Your task to perform on an android device: Open maps Image 0: 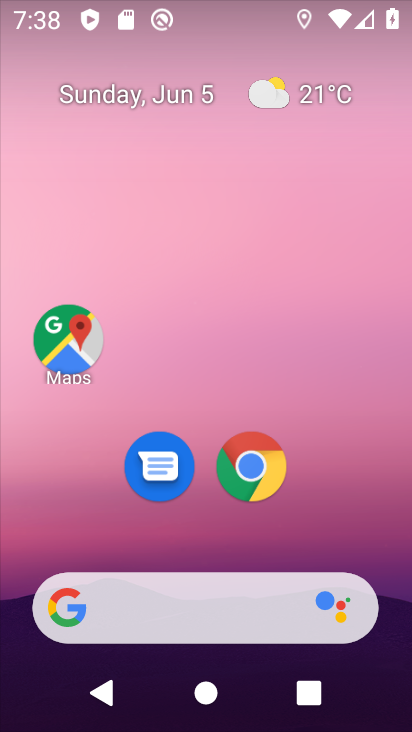
Step 0: click (372, 26)
Your task to perform on an android device: Open maps Image 1: 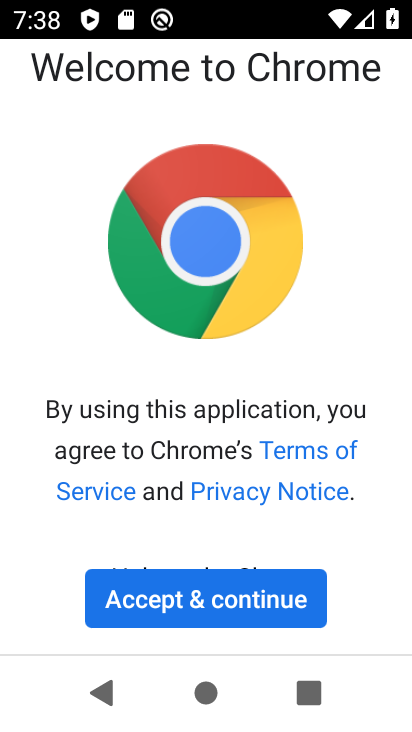
Step 1: press home button
Your task to perform on an android device: Open maps Image 2: 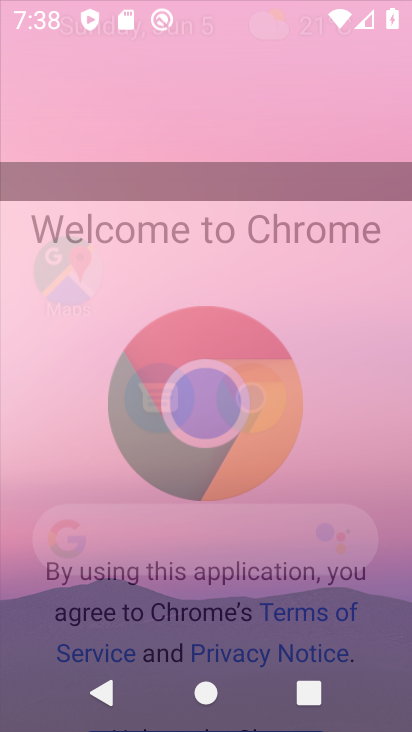
Step 2: drag from (119, 538) to (17, 168)
Your task to perform on an android device: Open maps Image 3: 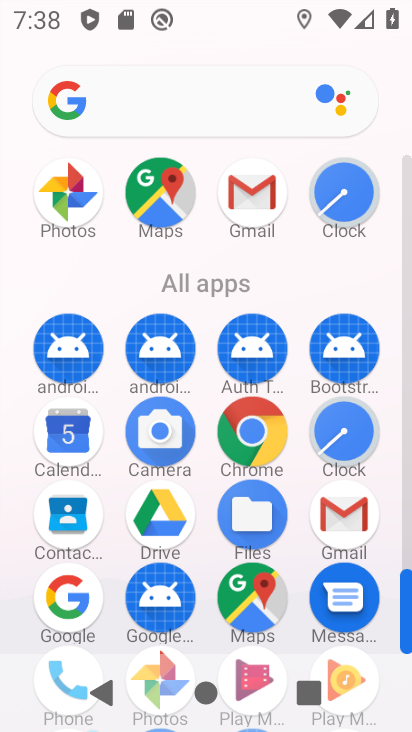
Step 3: click (163, 188)
Your task to perform on an android device: Open maps Image 4: 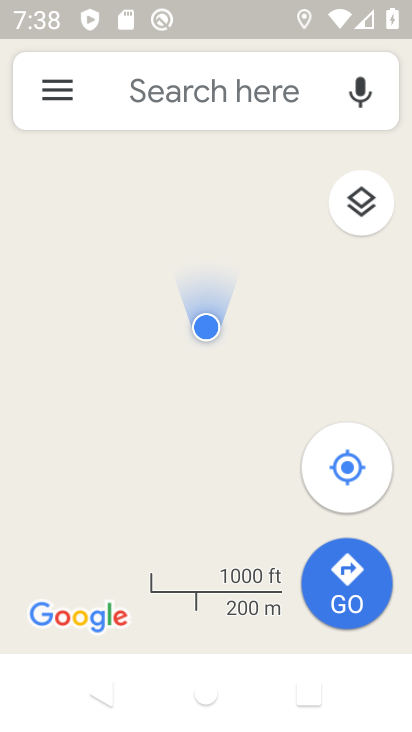
Step 4: drag from (226, 541) to (221, 142)
Your task to perform on an android device: Open maps Image 5: 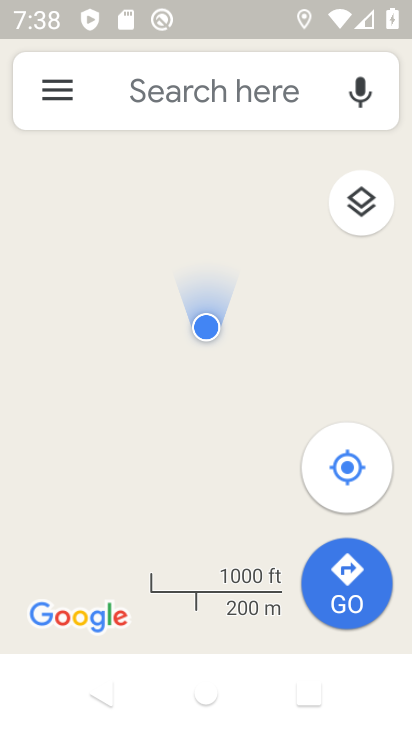
Step 5: drag from (221, 184) to (242, 536)
Your task to perform on an android device: Open maps Image 6: 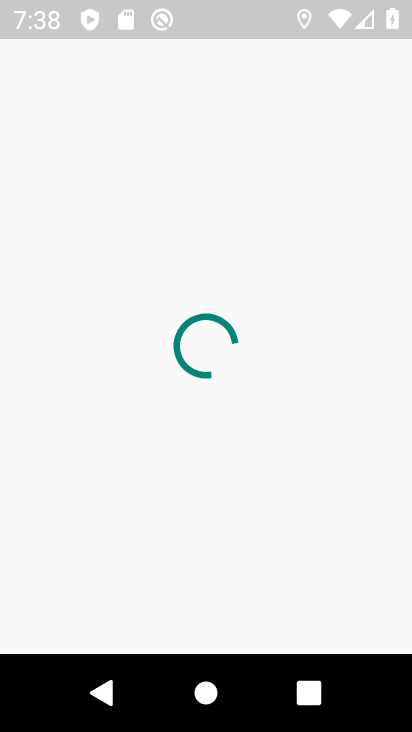
Step 6: drag from (234, 264) to (184, 563)
Your task to perform on an android device: Open maps Image 7: 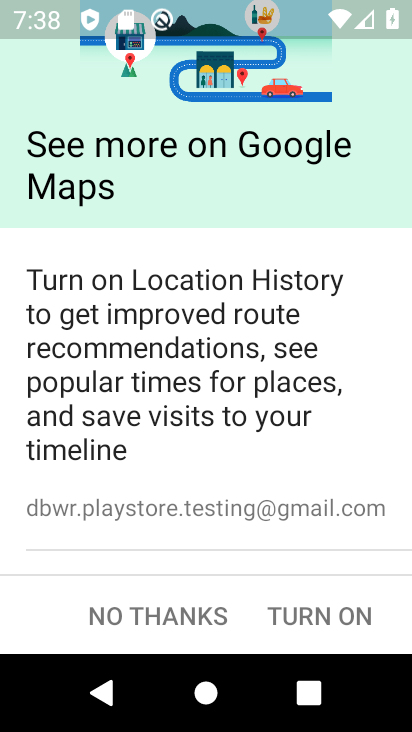
Step 7: click (154, 603)
Your task to perform on an android device: Open maps Image 8: 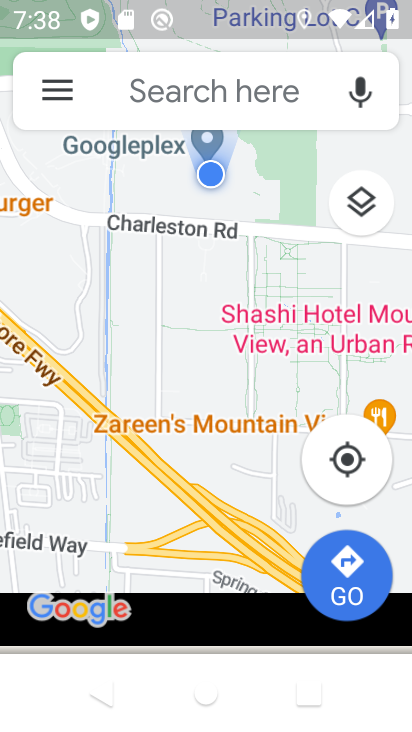
Step 8: drag from (235, 495) to (263, 301)
Your task to perform on an android device: Open maps Image 9: 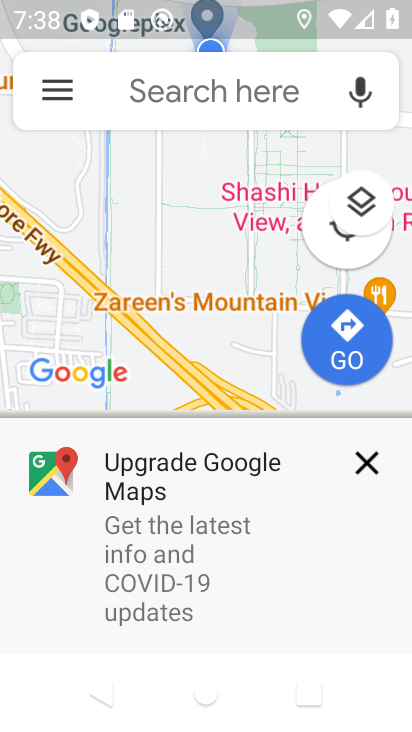
Step 9: drag from (263, 298) to (342, 724)
Your task to perform on an android device: Open maps Image 10: 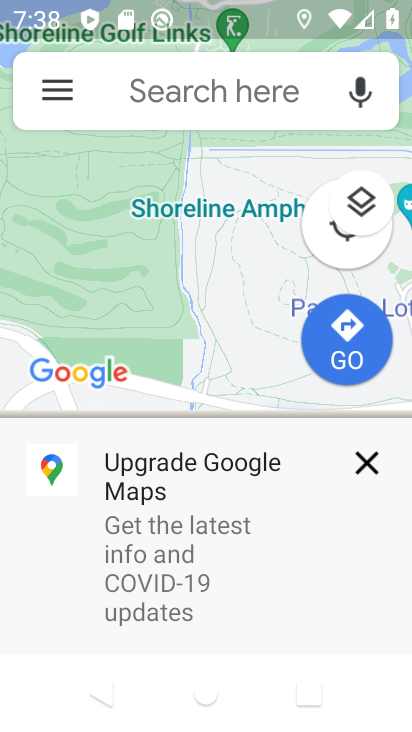
Step 10: click (367, 462)
Your task to perform on an android device: Open maps Image 11: 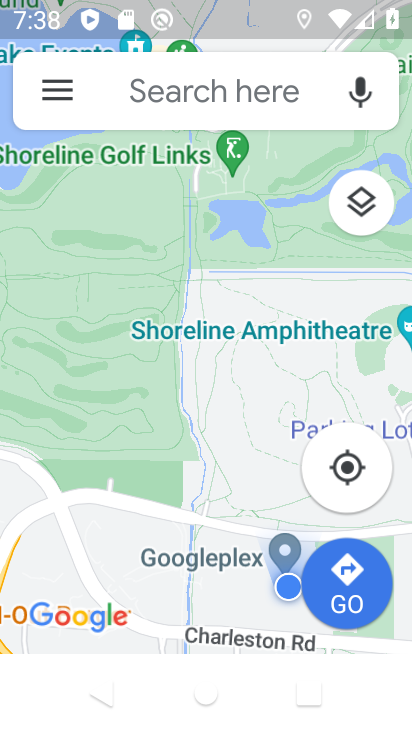
Step 11: task complete